Your task to perform on an android device: change your default location settings in chrome Image 0: 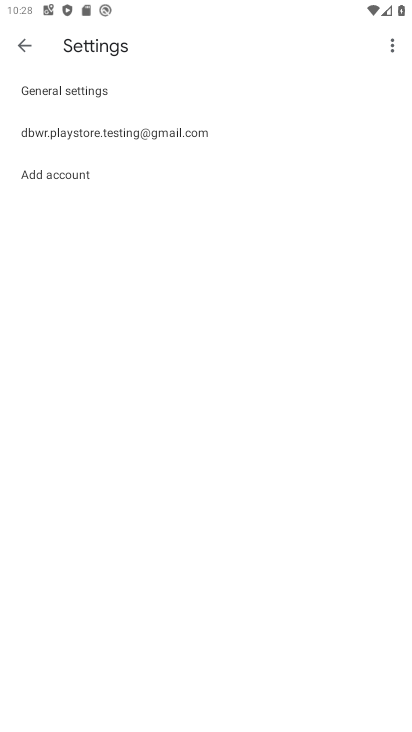
Step 0: press home button
Your task to perform on an android device: change your default location settings in chrome Image 1: 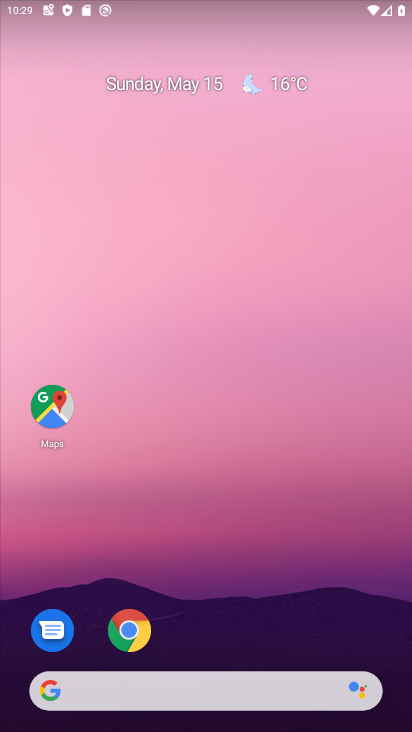
Step 1: click (116, 624)
Your task to perform on an android device: change your default location settings in chrome Image 2: 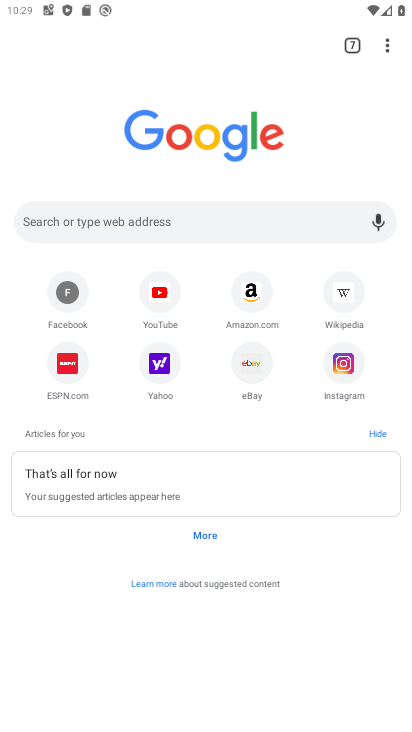
Step 2: drag from (383, 42) to (239, 372)
Your task to perform on an android device: change your default location settings in chrome Image 3: 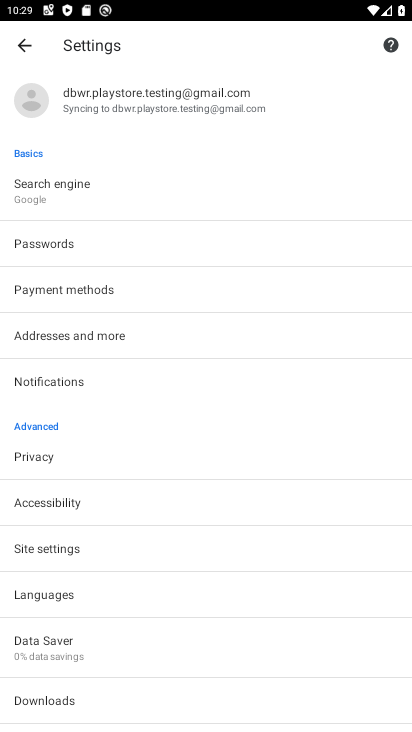
Step 3: click (85, 535)
Your task to perform on an android device: change your default location settings in chrome Image 4: 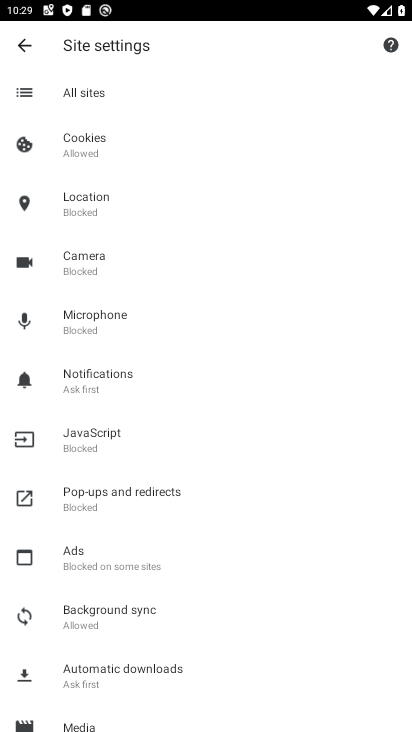
Step 4: click (116, 199)
Your task to perform on an android device: change your default location settings in chrome Image 5: 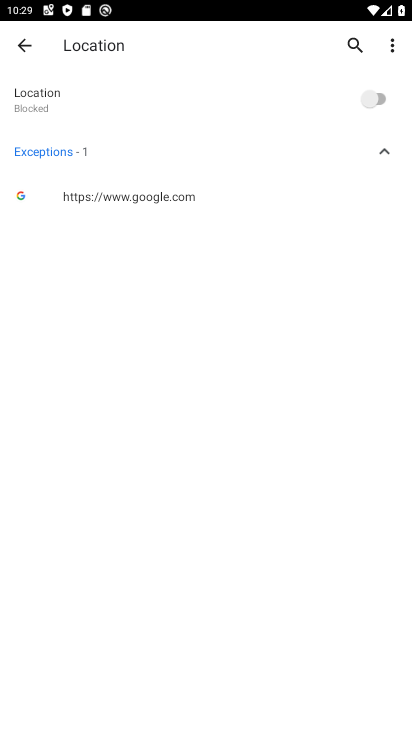
Step 5: click (377, 96)
Your task to perform on an android device: change your default location settings in chrome Image 6: 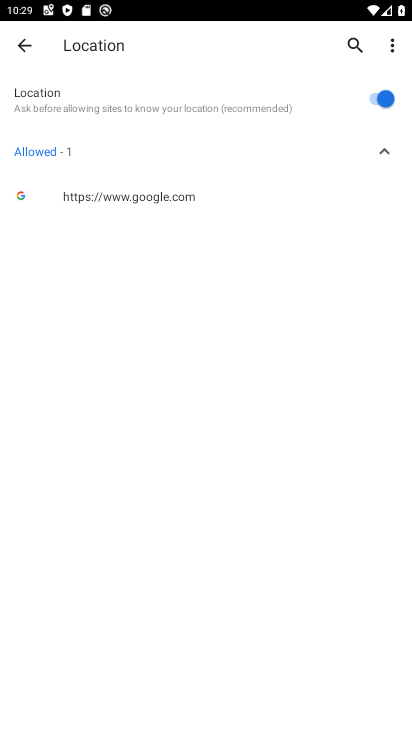
Step 6: task complete